Your task to perform on an android device: open sync settings in chrome Image 0: 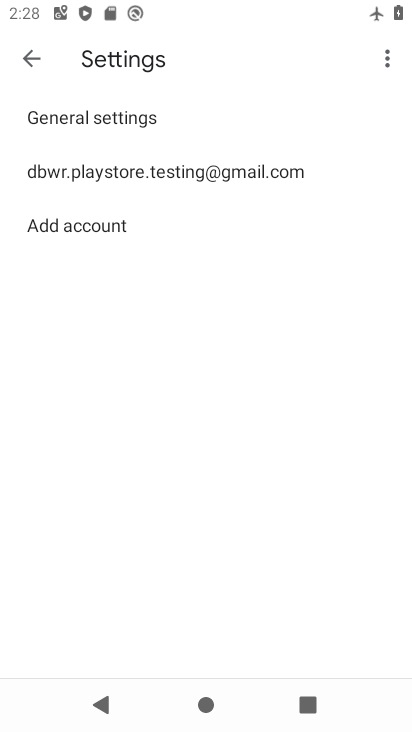
Step 0: press home button
Your task to perform on an android device: open sync settings in chrome Image 1: 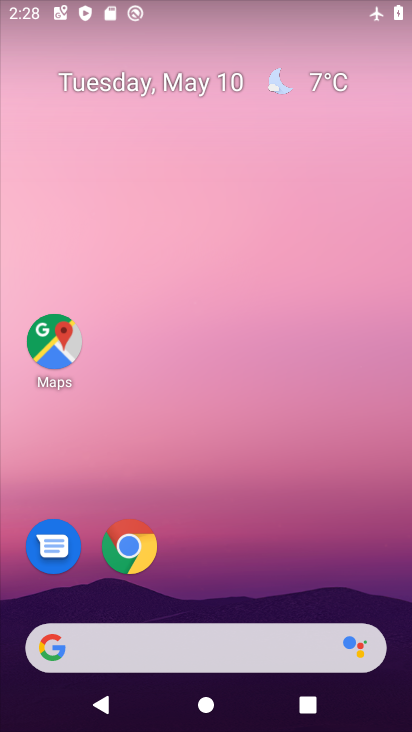
Step 1: drag from (314, 506) to (364, 99)
Your task to perform on an android device: open sync settings in chrome Image 2: 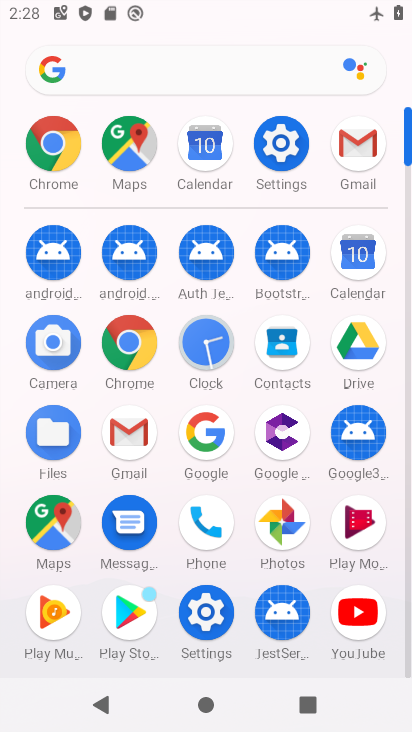
Step 2: click (35, 150)
Your task to perform on an android device: open sync settings in chrome Image 3: 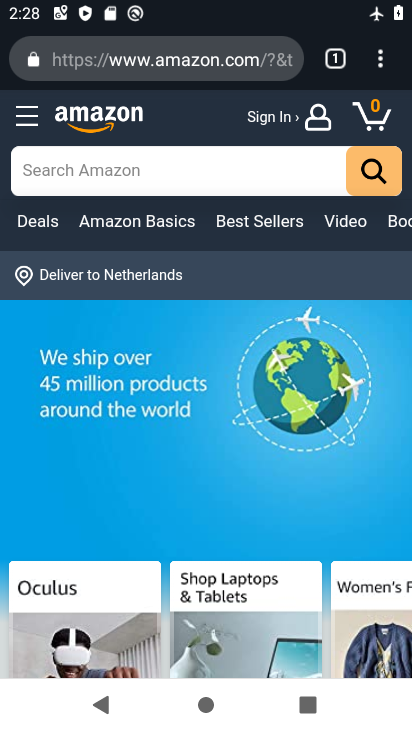
Step 3: drag from (385, 73) to (167, 574)
Your task to perform on an android device: open sync settings in chrome Image 4: 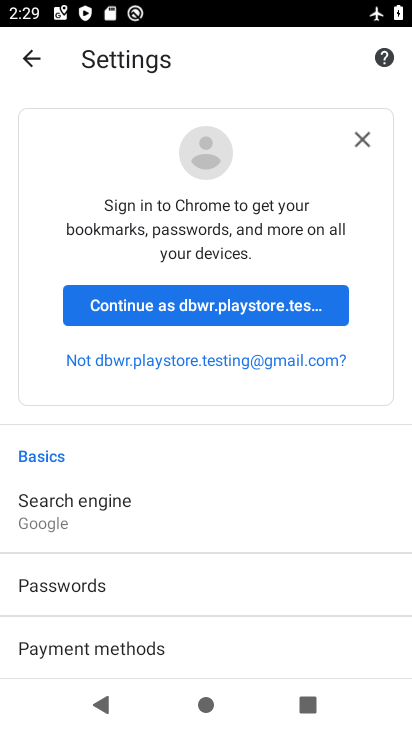
Step 4: drag from (171, 599) to (178, 354)
Your task to perform on an android device: open sync settings in chrome Image 5: 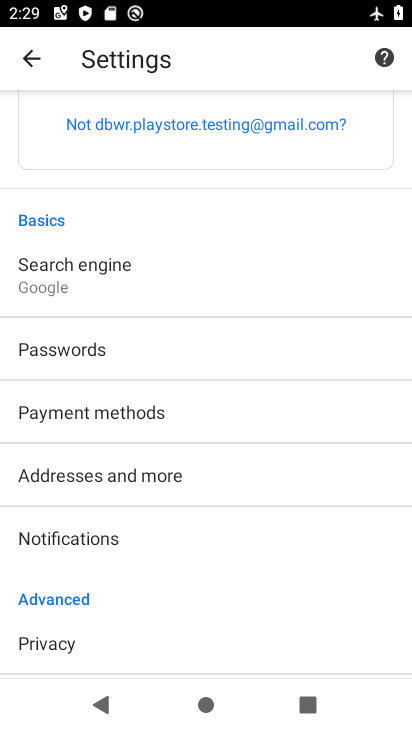
Step 5: drag from (177, 637) to (163, 248)
Your task to perform on an android device: open sync settings in chrome Image 6: 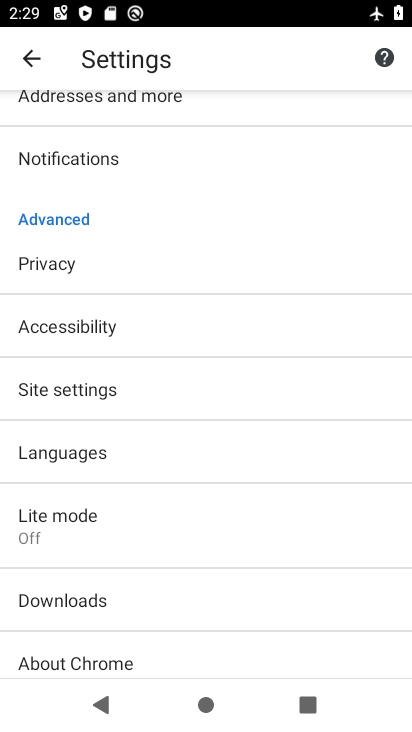
Step 6: drag from (108, 594) to (142, 170)
Your task to perform on an android device: open sync settings in chrome Image 7: 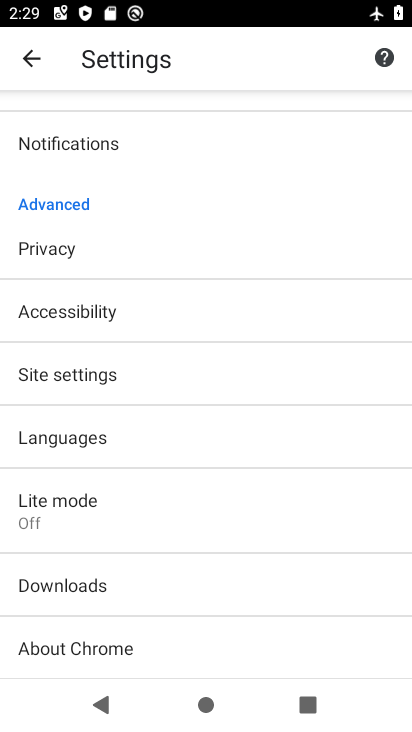
Step 7: click (103, 363)
Your task to perform on an android device: open sync settings in chrome Image 8: 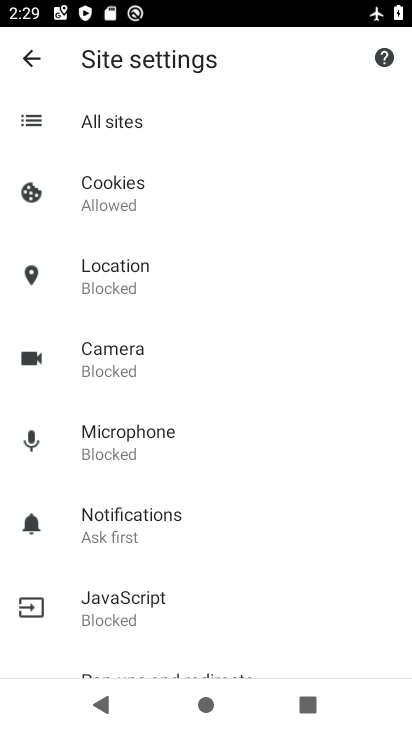
Step 8: drag from (144, 497) to (125, 237)
Your task to perform on an android device: open sync settings in chrome Image 9: 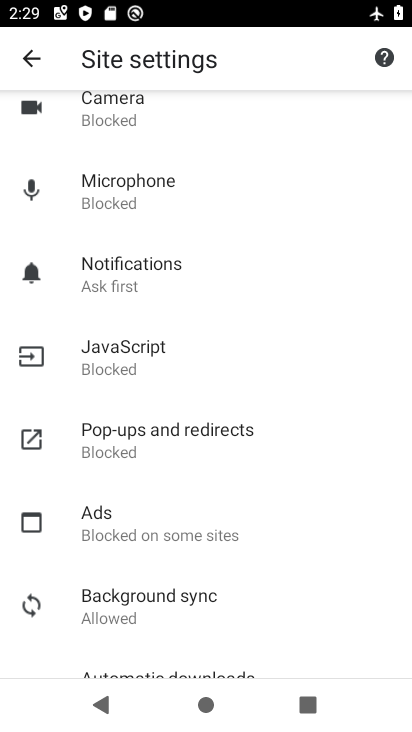
Step 9: drag from (175, 624) to (174, 374)
Your task to perform on an android device: open sync settings in chrome Image 10: 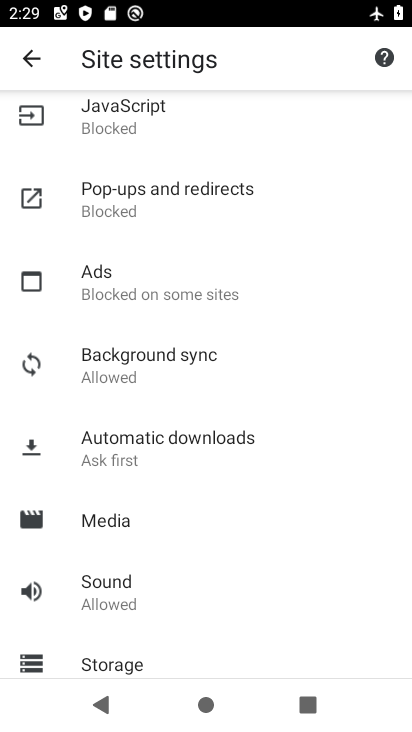
Step 10: click (171, 364)
Your task to perform on an android device: open sync settings in chrome Image 11: 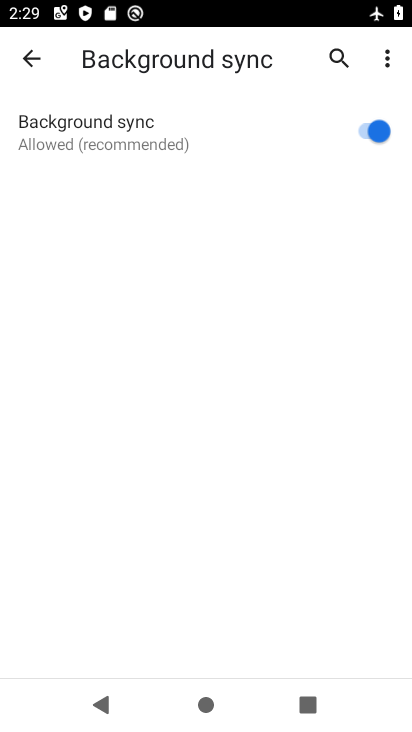
Step 11: task complete